Your task to perform on an android device: Open Wikipedia Image 0: 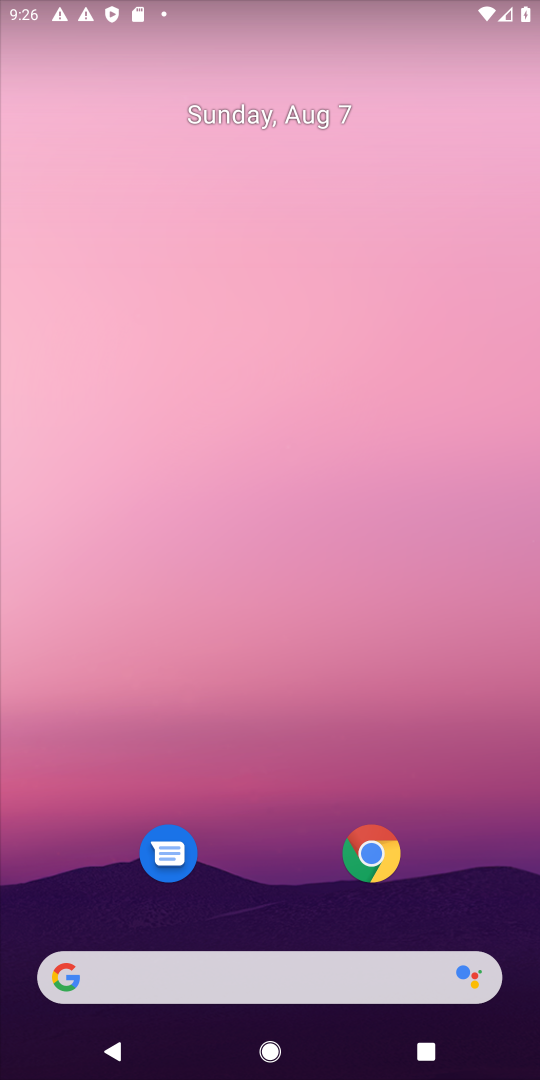
Step 0: press home button
Your task to perform on an android device: Open Wikipedia Image 1: 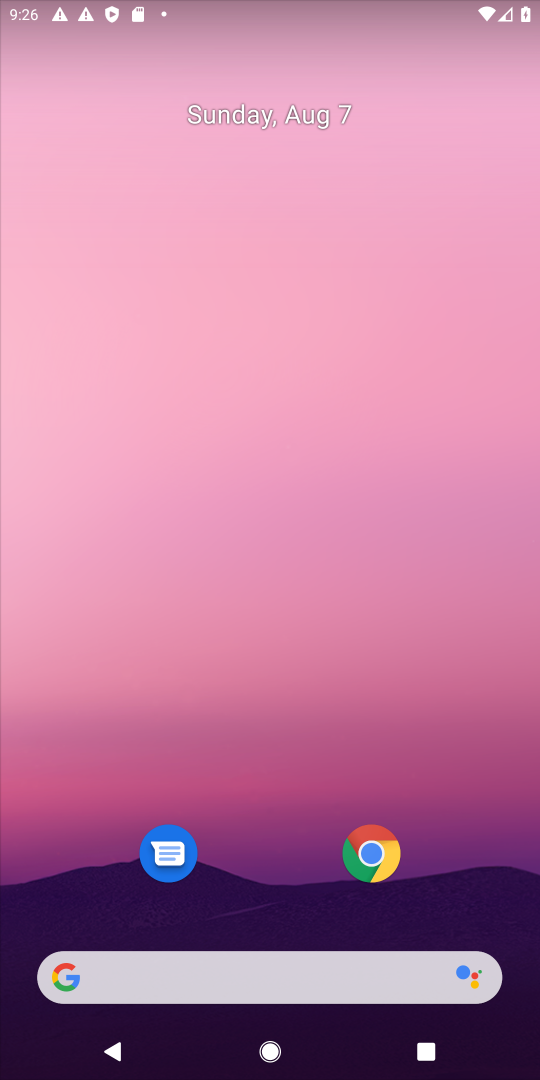
Step 1: drag from (268, 885) to (315, 302)
Your task to perform on an android device: Open Wikipedia Image 2: 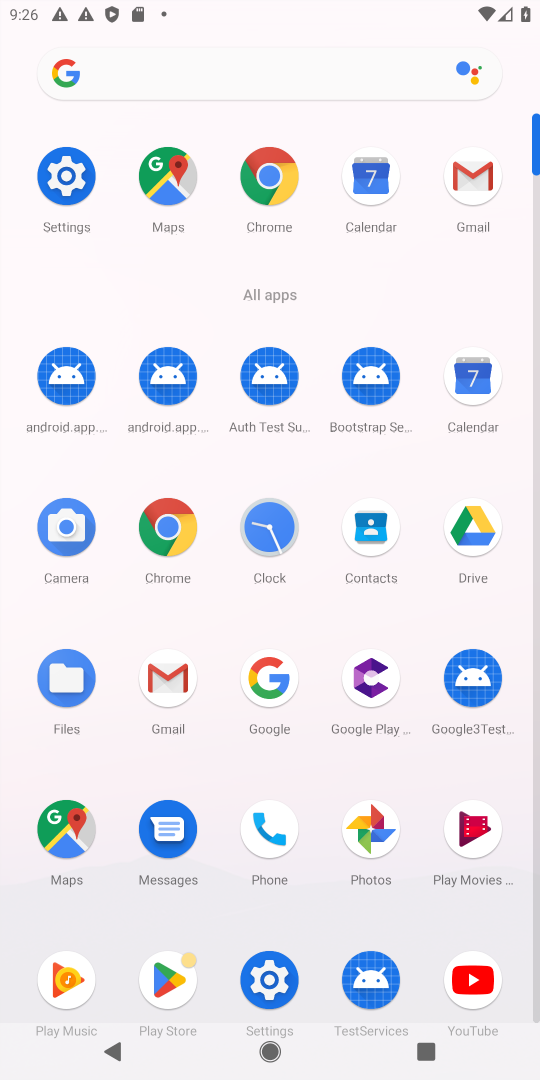
Step 2: click (164, 531)
Your task to perform on an android device: Open Wikipedia Image 3: 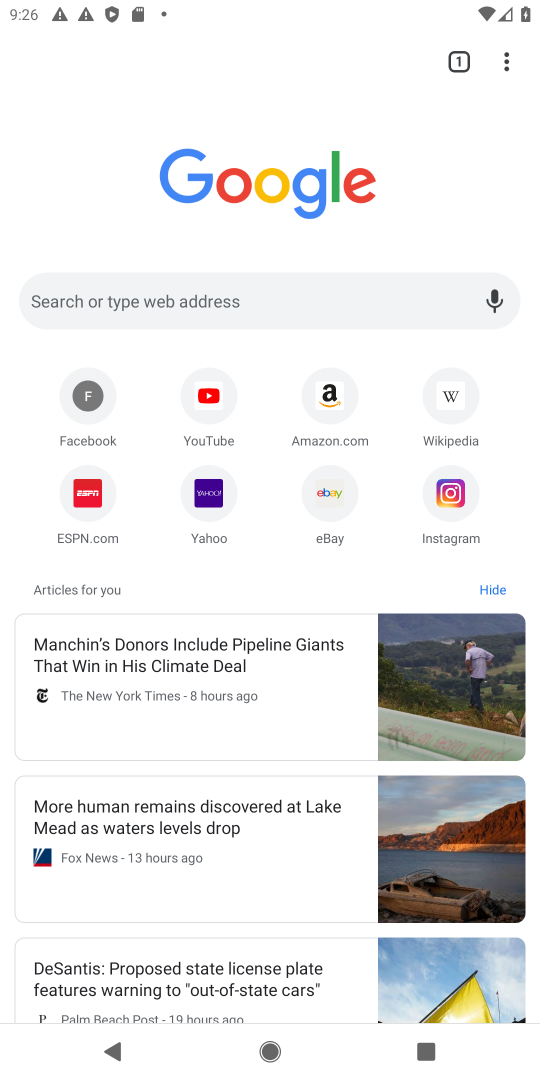
Step 3: click (278, 296)
Your task to perform on an android device: Open Wikipedia Image 4: 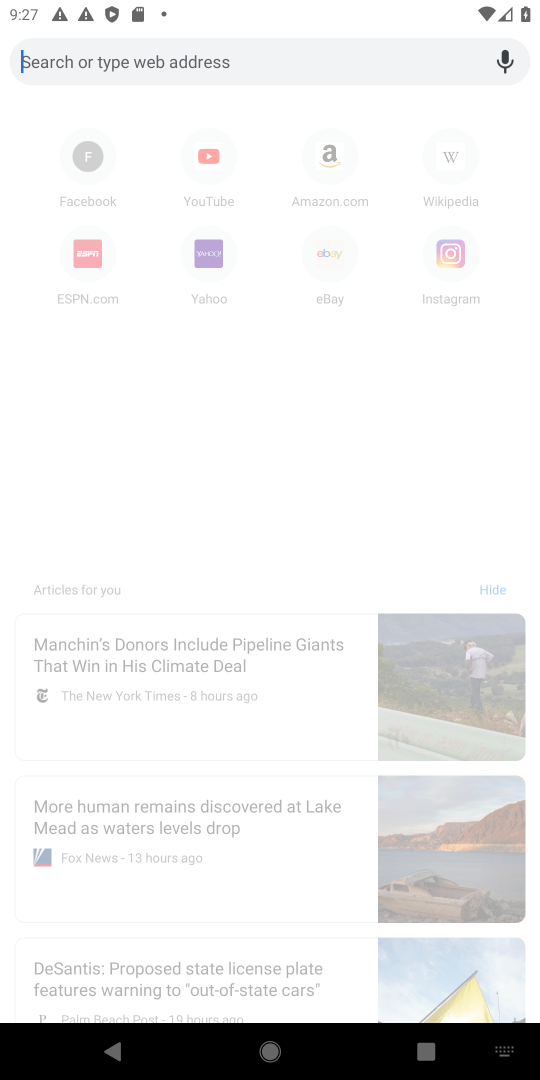
Step 4: type "wikipedia"
Your task to perform on an android device: Open Wikipedia Image 5: 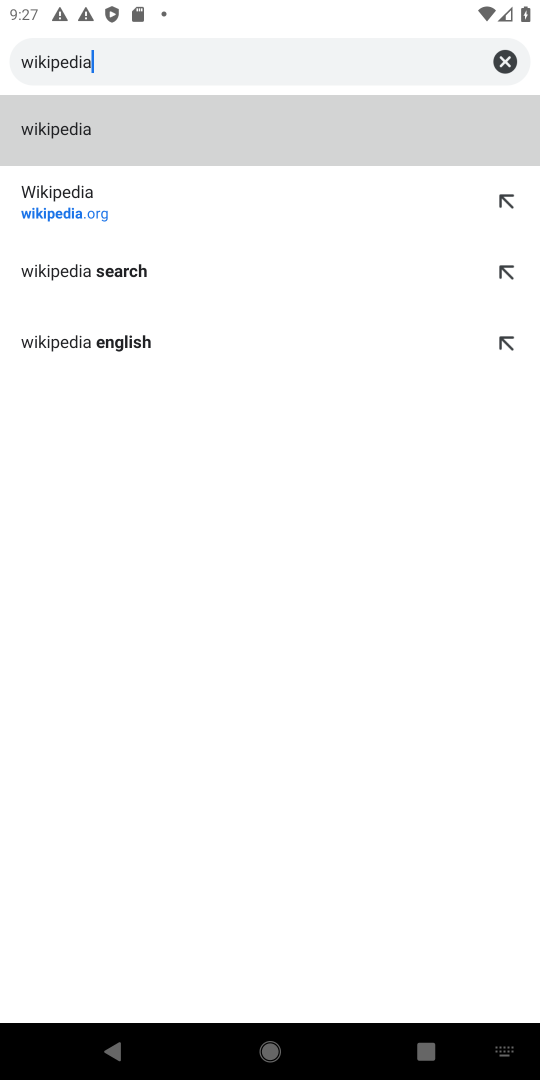
Step 5: click (167, 214)
Your task to perform on an android device: Open Wikipedia Image 6: 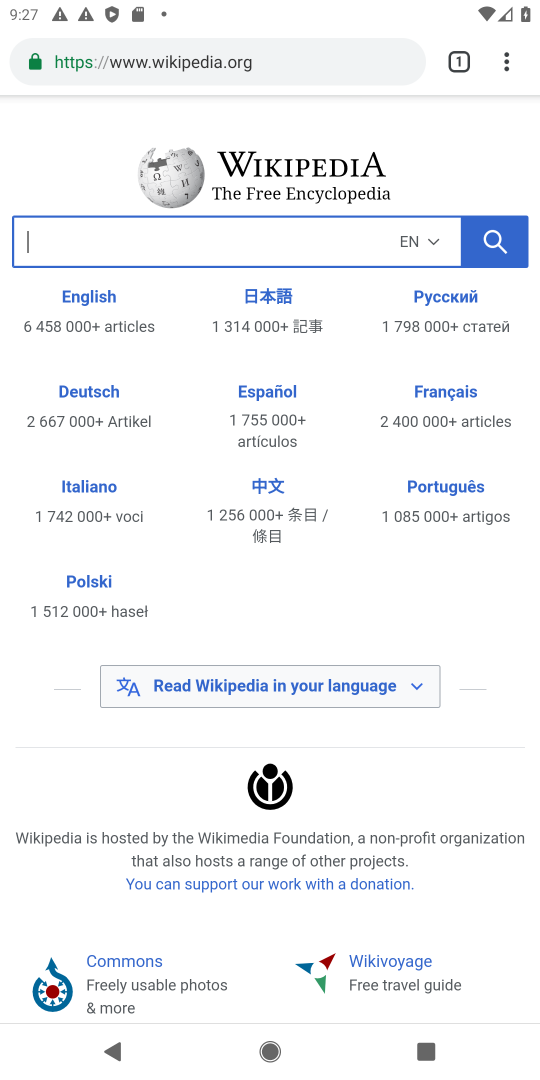
Step 6: task complete